Your task to perform on an android device: turn off improve location accuracy Image 0: 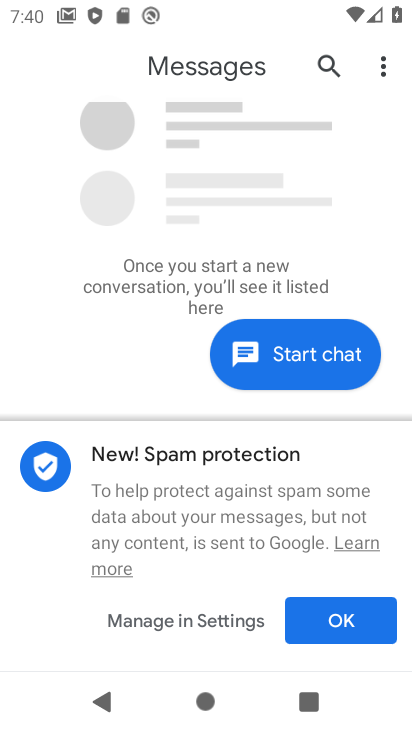
Step 0: press home button
Your task to perform on an android device: turn off improve location accuracy Image 1: 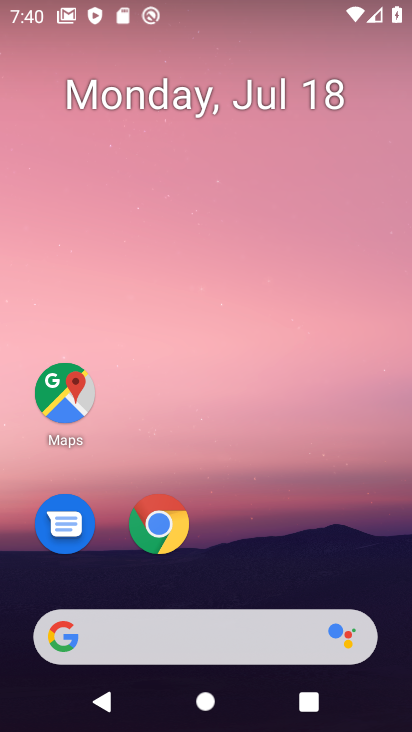
Step 1: drag from (244, 577) to (220, 0)
Your task to perform on an android device: turn off improve location accuracy Image 2: 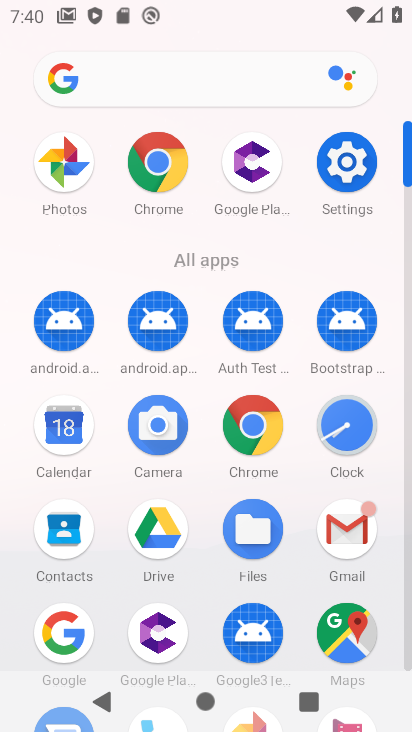
Step 2: click (343, 161)
Your task to perform on an android device: turn off improve location accuracy Image 3: 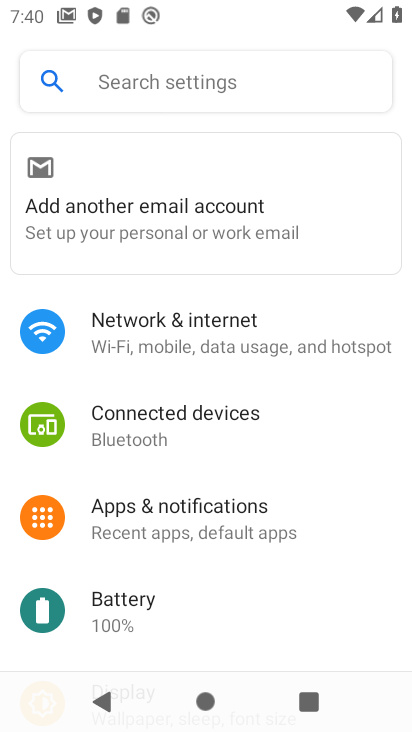
Step 3: drag from (236, 607) to (221, 94)
Your task to perform on an android device: turn off improve location accuracy Image 4: 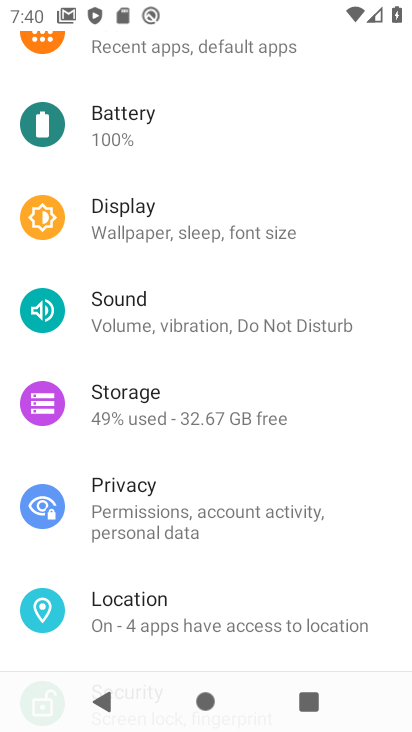
Step 4: click (171, 615)
Your task to perform on an android device: turn off improve location accuracy Image 5: 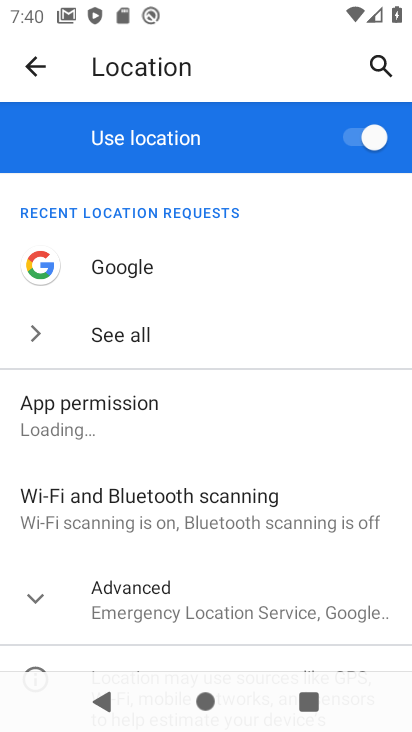
Step 5: click (30, 595)
Your task to perform on an android device: turn off improve location accuracy Image 6: 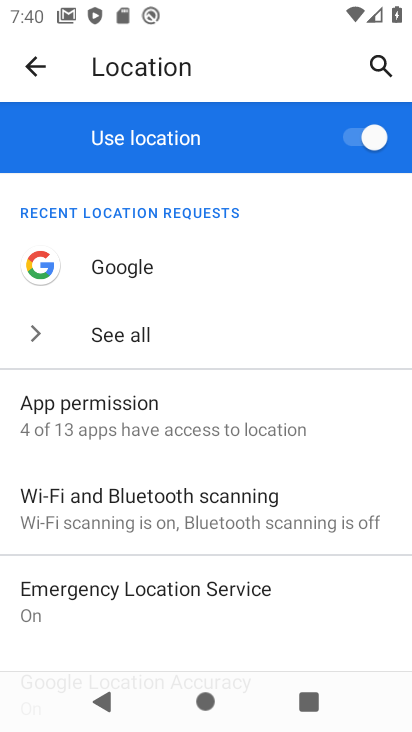
Step 6: drag from (315, 581) to (308, 211)
Your task to perform on an android device: turn off improve location accuracy Image 7: 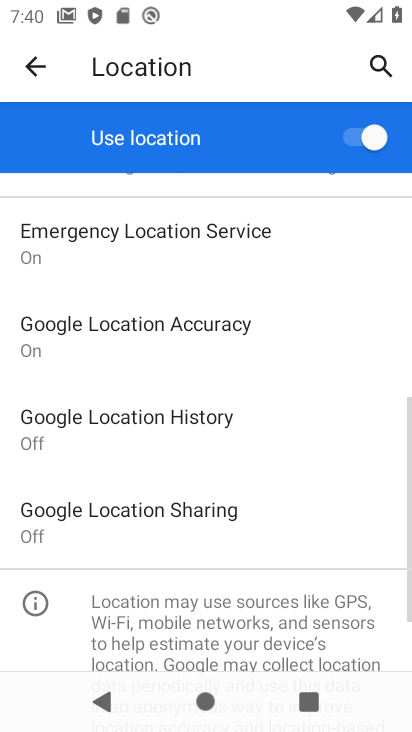
Step 7: click (198, 327)
Your task to perform on an android device: turn off improve location accuracy Image 8: 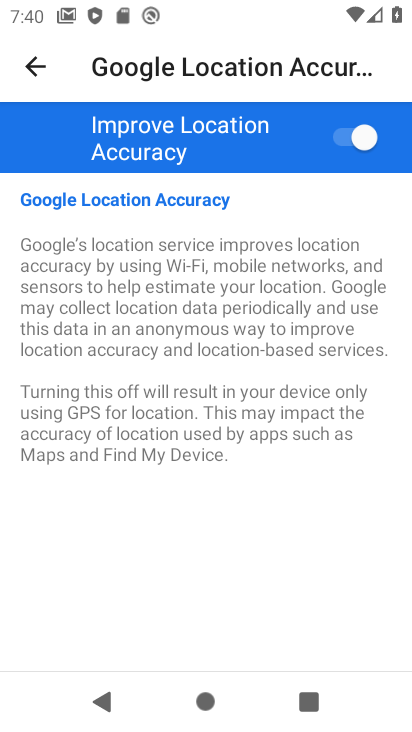
Step 8: click (358, 145)
Your task to perform on an android device: turn off improve location accuracy Image 9: 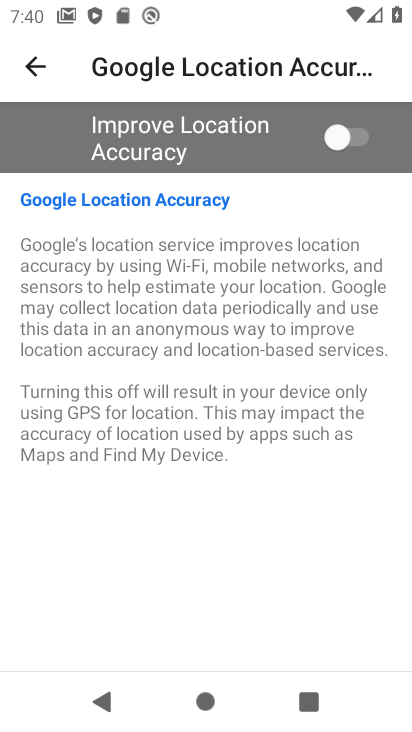
Step 9: task complete